Your task to perform on an android device: visit the assistant section in the google photos Image 0: 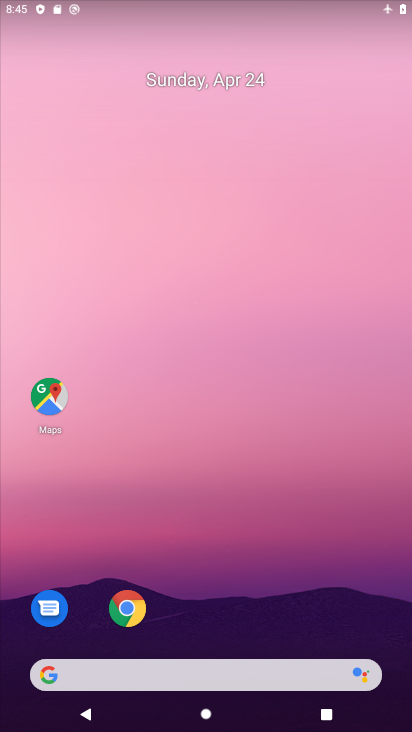
Step 0: drag from (202, 590) to (221, 158)
Your task to perform on an android device: visit the assistant section in the google photos Image 1: 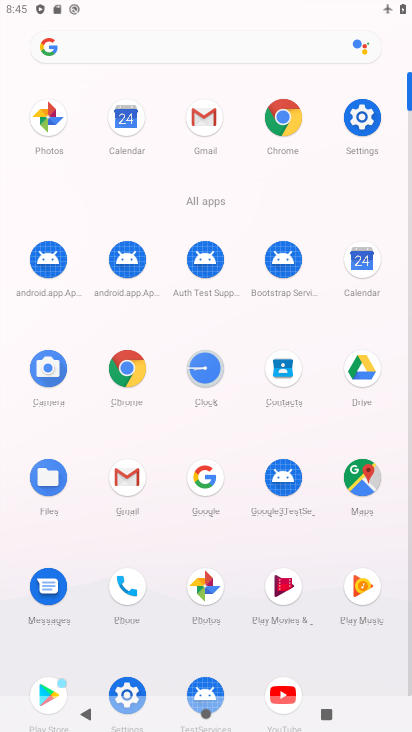
Step 1: click (211, 574)
Your task to perform on an android device: visit the assistant section in the google photos Image 2: 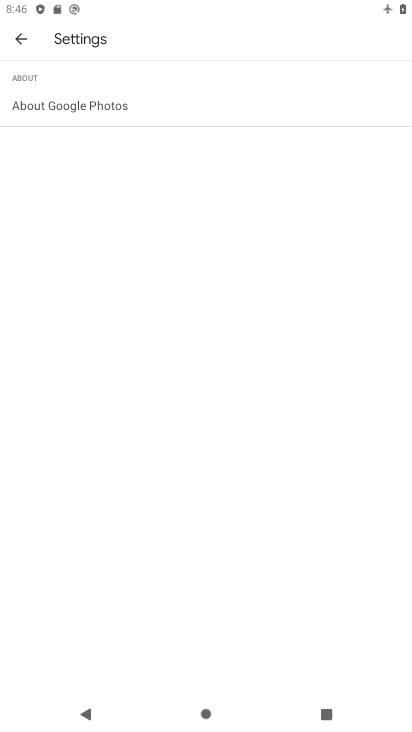
Step 2: click (24, 33)
Your task to perform on an android device: visit the assistant section in the google photos Image 3: 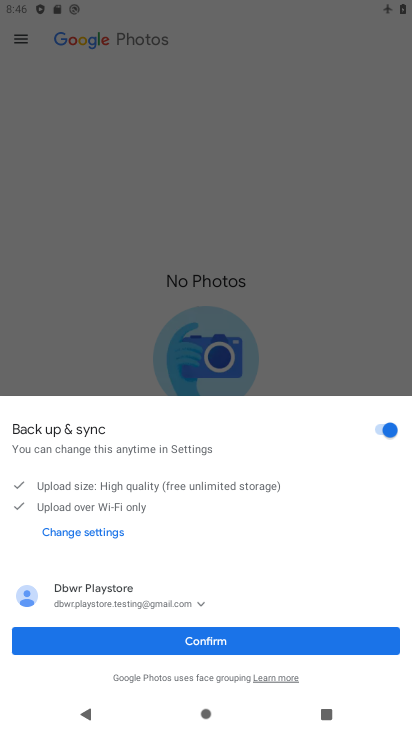
Step 3: click (327, 639)
Your task to perform on an android device: visit the assistant section in the google photos Image 4: 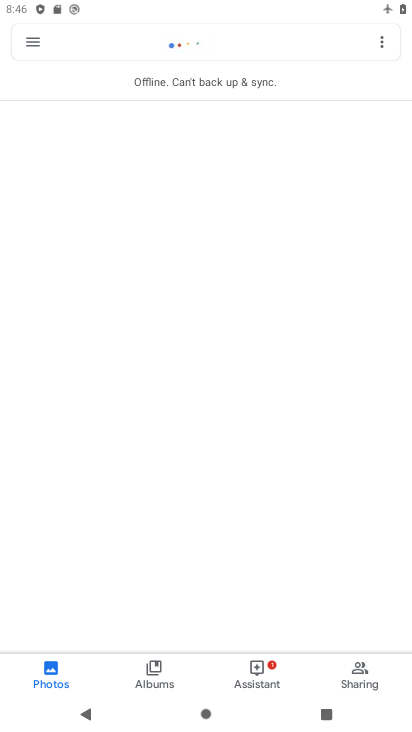
Step 4: click (261, 660)
Your task to perform on an android device: visit the assistant section in the google photos Image 5: 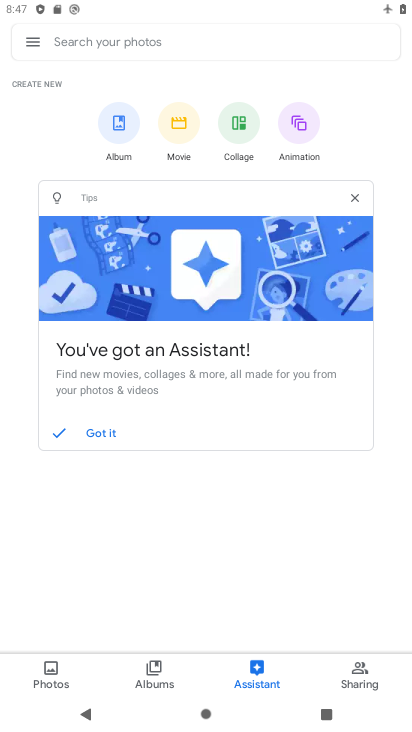
Step 5: task complete